Your task to perform on an android device: open chrome privacy settings Image 0: 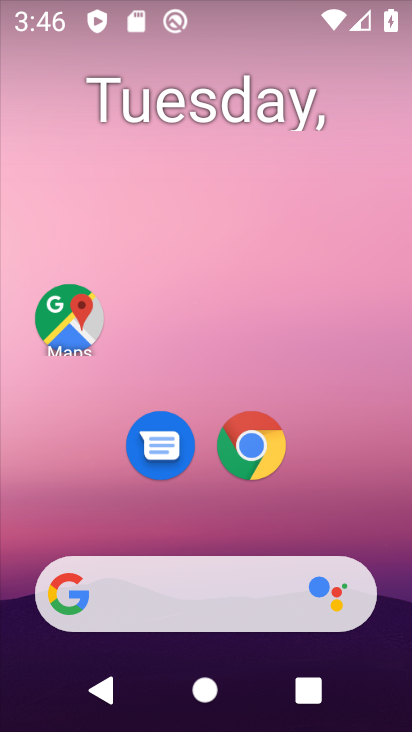
Step 0: click (262, 437)
Your task to perform on an android device: open chrome privacy settings Image 1: 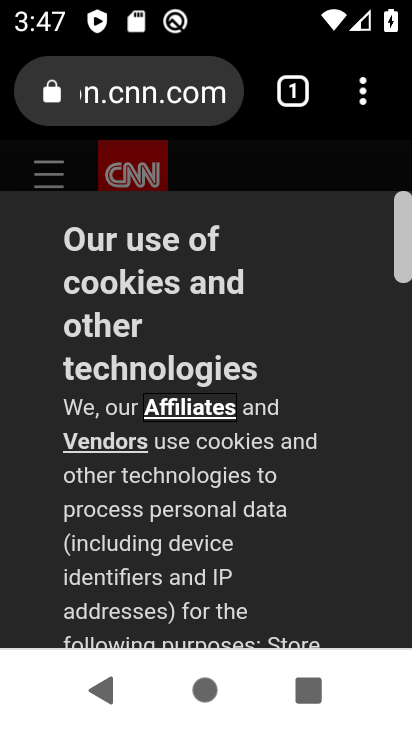
Step 1: click (372, 90)
Your task to perform on an android device: open chrome privacy settings Image 2: 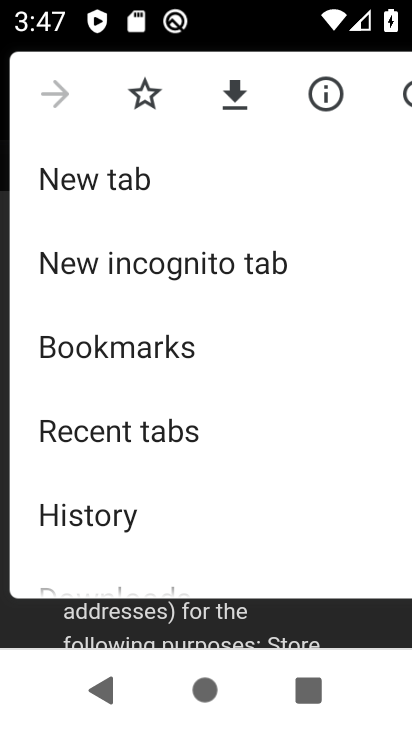
Step 2: drag from (263, 508) to (222, 12)
Your task to perform on an android device: open chrome privacy settings Image 3: 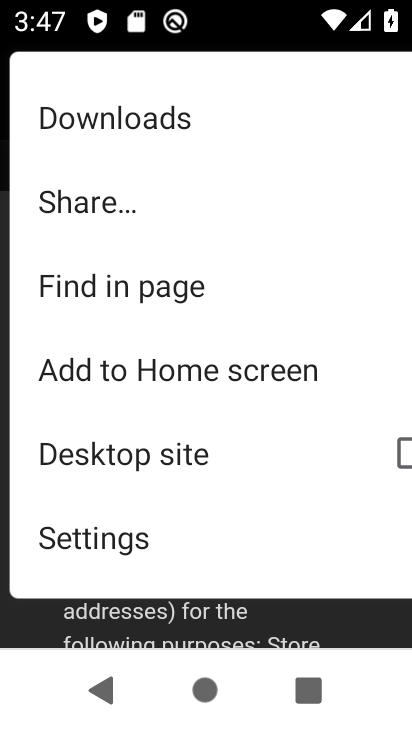
Step 3: click (119, 540)
Your task to perform on an android device: open chrome privacy settings Image 4: 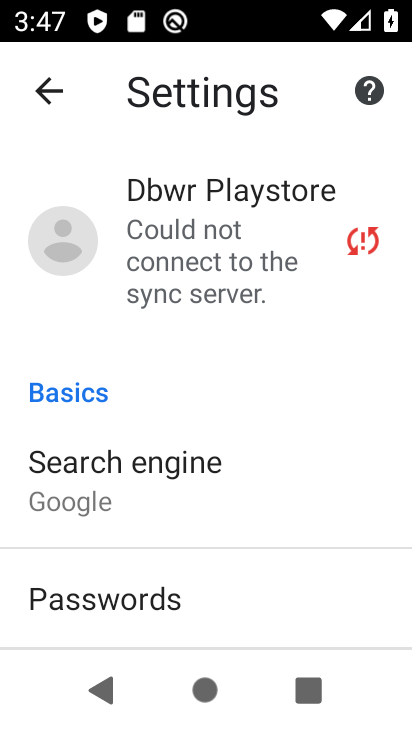
Step 4: drag from (224, 588) to (211, 275)
Your task to perform on an android device: open chrome privacy settings Image 5: 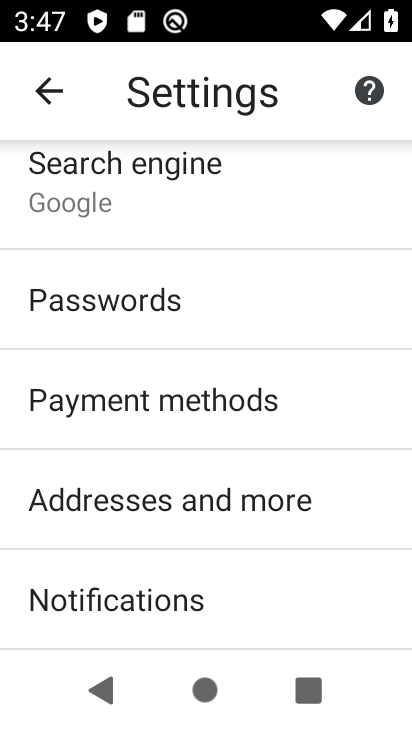
Step 5: drag from (223, 591) to (189, 101)
Your task to perform on an android device: open chrome privacy settings Image 6: 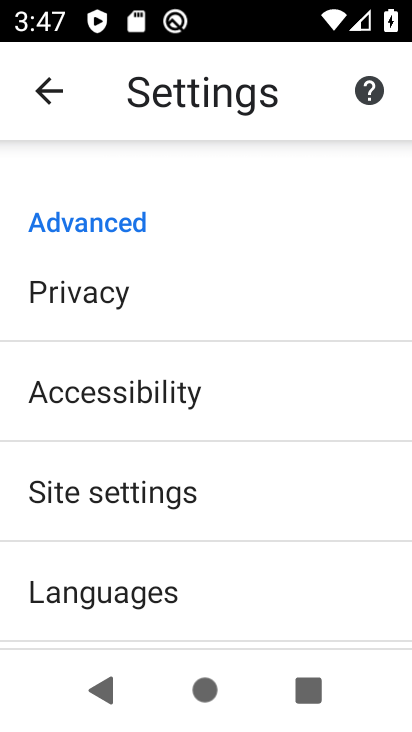
Step 6: click (130, 301)
Your task to perform on an android device: open chrome privacy settings Image 7: 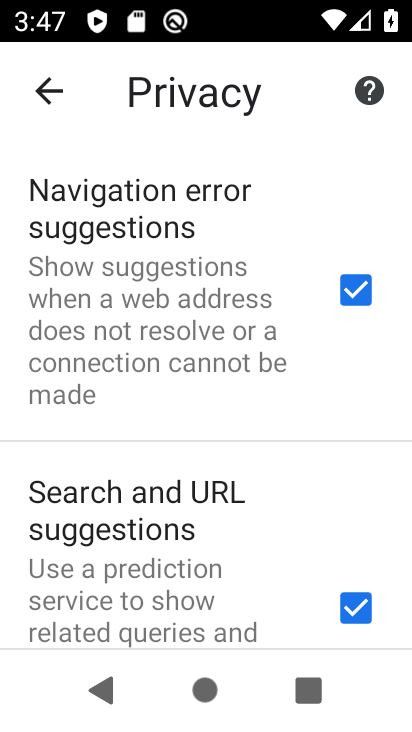
Step 7: task complete